Your task to perform on an android device: turn off data saver in the chrome app Image 0: 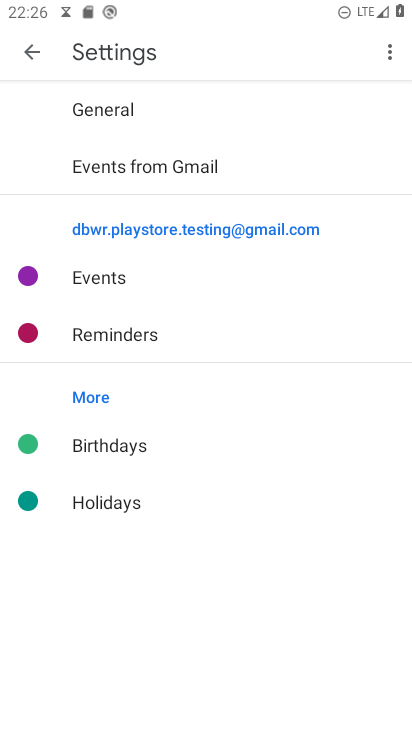
Step 0: press home button
Your task to perform on an android device: turn off data saver in the chrome app Image 1: 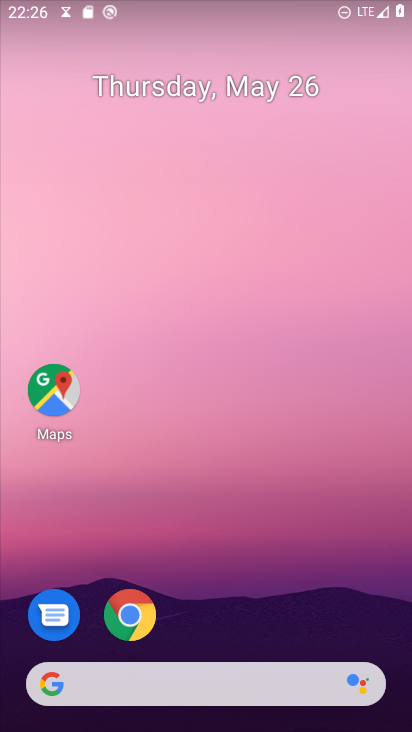
Step 1: drag from (237, 600) to (263, 283)
Your task to perform on an android device: turn off data saver in the chrome app Image 2: 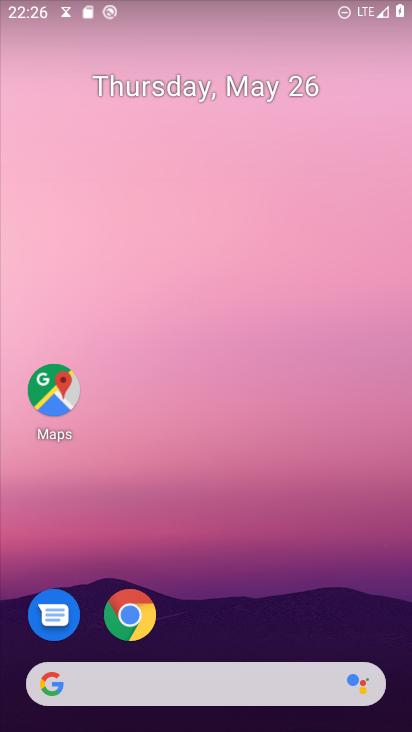
Step 2: click (132, 608)
Your task to perform on an android device: turn off data saver in the chrome app Image 3: 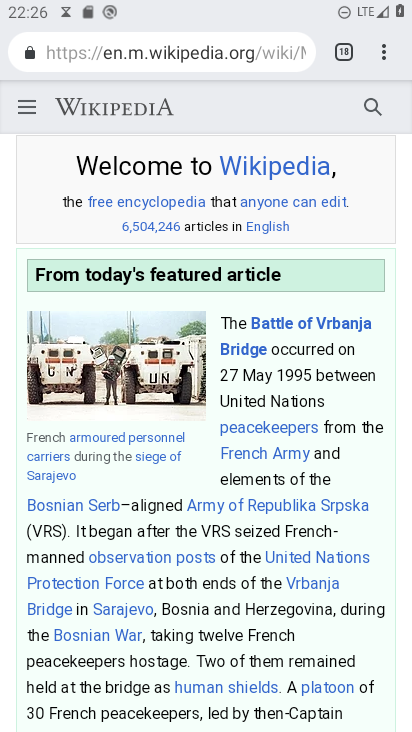
Step 3: click (379, 49)
Your task to perform on an android device: turn off data saver in the chrome app Image 4: 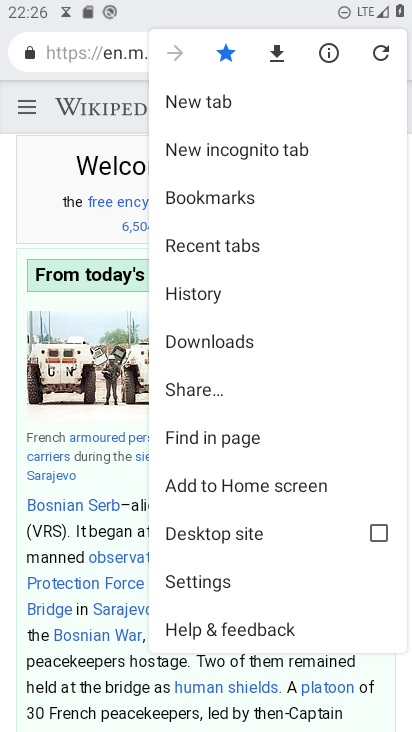
Step 4: click (230, 580)
Your task to perform on an android device: turn off data saver in the chrome app Image 5: 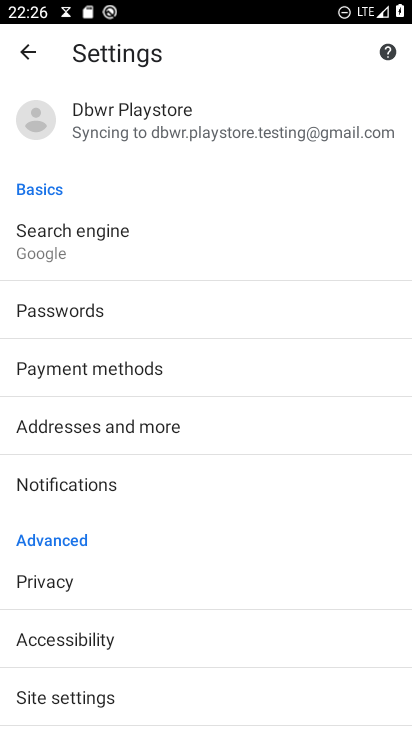
Step 5: drag from (133, 623) to (130, 394)
Your task to perform on an android device: turn off data saver in the chrome app Image 6: 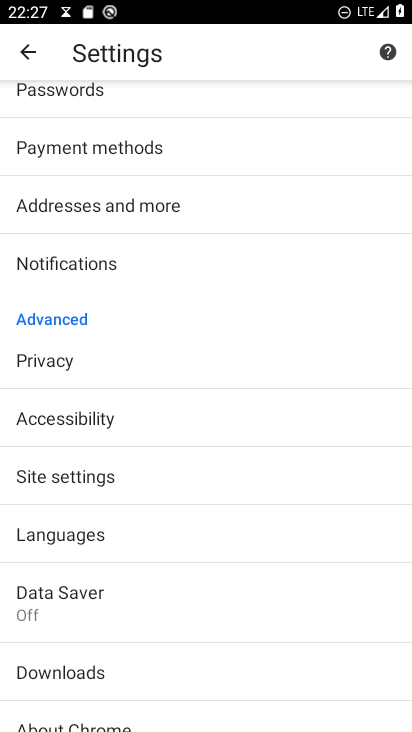
Step 6: click (104, 598)
Your task to perform on an android device: turn off data saver in the chrome app Image 7: 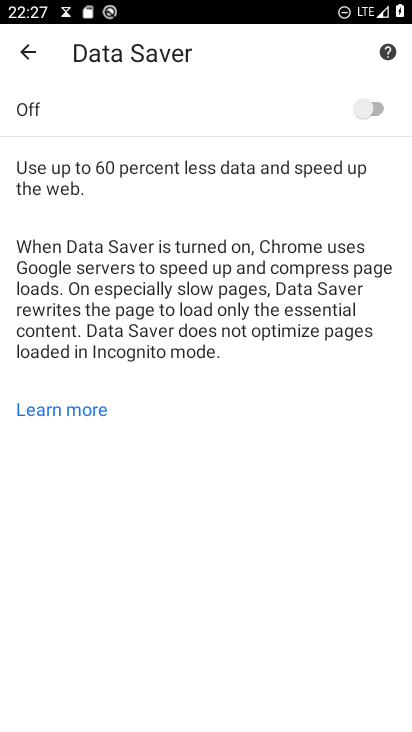
Step 7: task complete